Your task to perform on an android device: turn off smart reply in the gmail app Image 0: 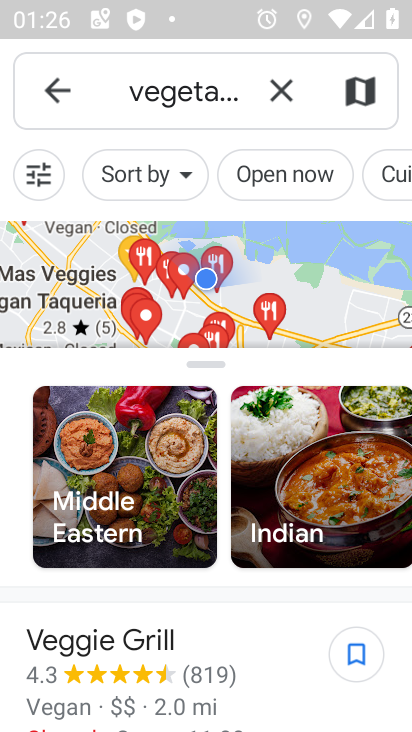
Step 0: press home button
Your task to perform on an android device: turn off smart reply in the gmail app Image 1: 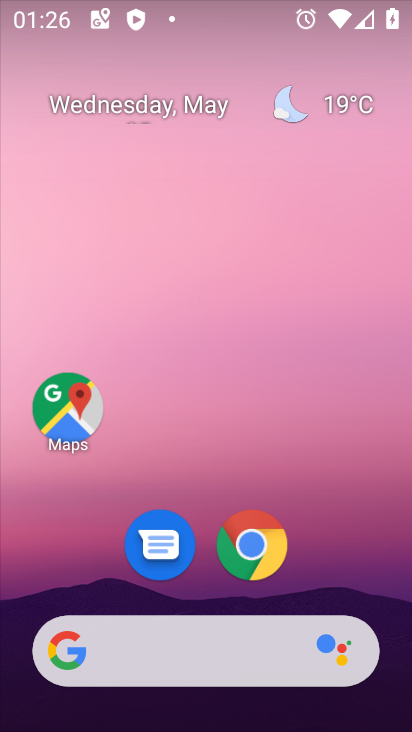
Step 1: drag from (367, 494) to (324, 68)
Your task to perform on an android device: turn off smart reply in the gmail app Image 2: 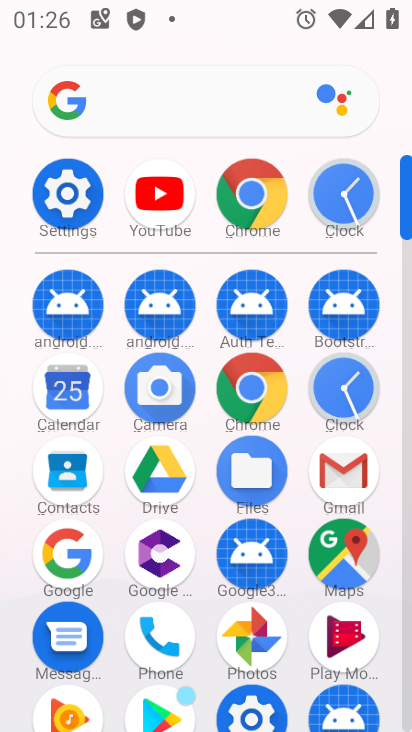
Step 2: click (334, 478)
Your task to perform on an android device: turn off smart reply in the gmail app Image 3: 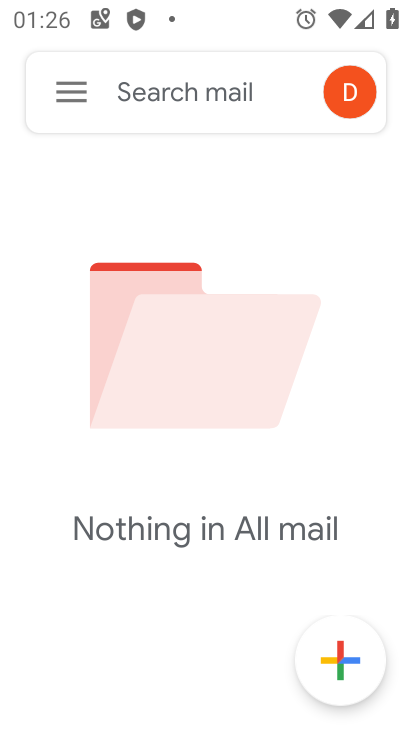
Step 3: click (73, 79)
Your task to perform on an android device: turn off smart reply in the gmail app Image 4: 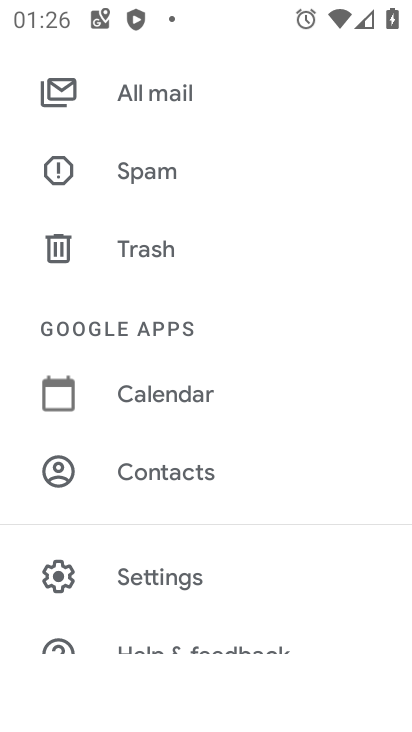
Step 4: click (158, 562)
Your task to perform on an android device: turn off smart reply in the gmail app Image 5: 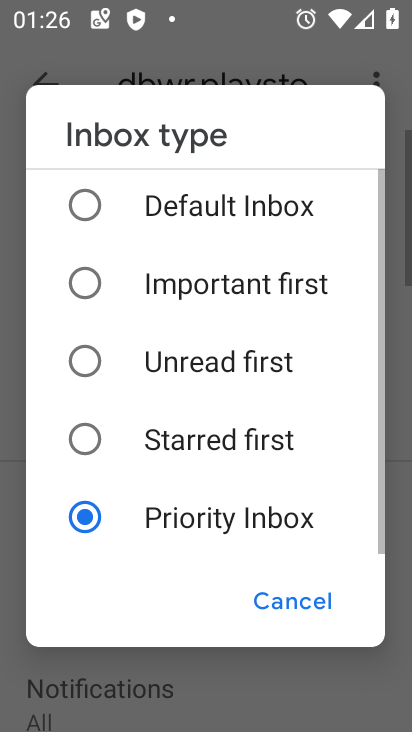
Step 5: click (282, 601)
Your task to perform on an android device: turn off smart reply in the gmail app Image 6: 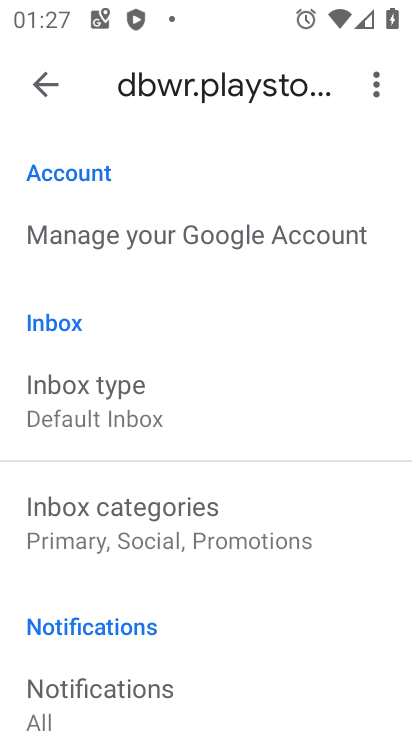
Step 6: drag from (257, 620) to (292, 38)
Your task to perform on an android device: turn off smart reply in the gmail app Image 7: 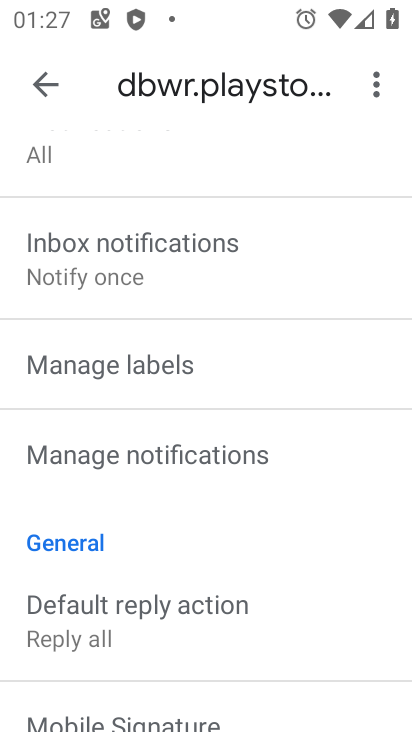
Step 7: drag from (280, 605) to (365, 152)
Your task to perform on an android device: turn off smart reply in the gmail app Image 8: 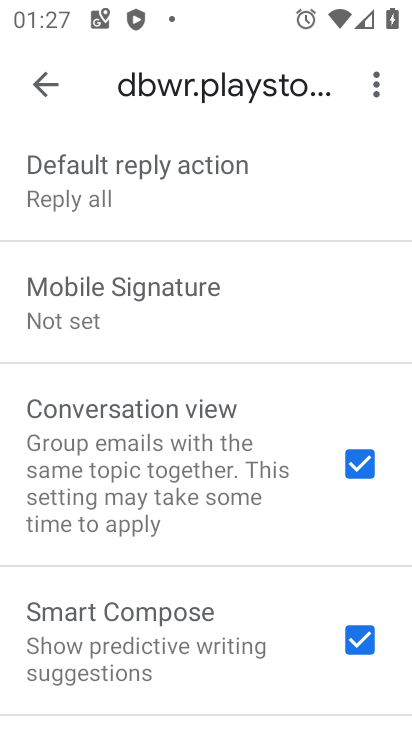
Step 8: drag from (207, 554) to (287, 163)
Your task to perform on an android device: turn off smart reply in the gmail app Image 9: 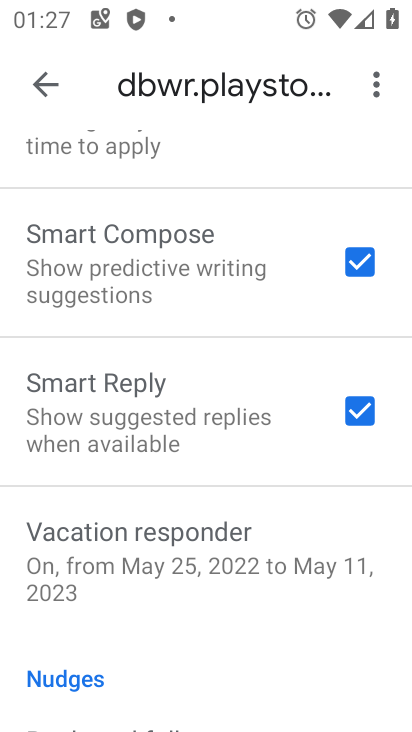
Step 9: click (365, 401)
Your task to perform on an android device: turn off smart reply in the gmail app Image 10: 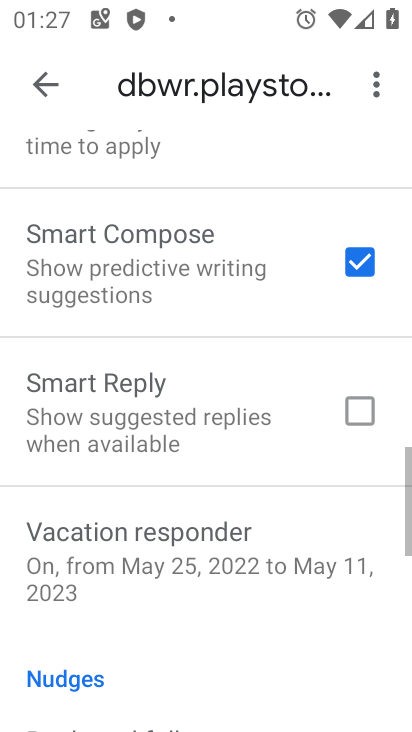
Step 10: task complete